Your task to perform on an android device: change the upload size in google photos Image 0: 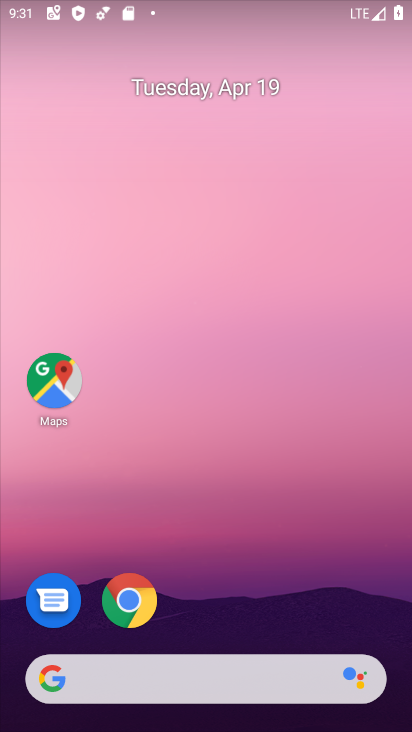
Step 0: drag from (386, 543) to (364, 172)
Your task to perform on an android device: change the upload size in google photos Image 1: 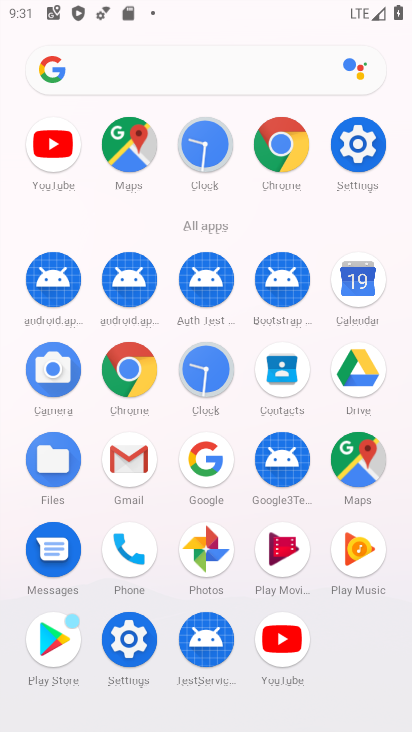
Step 1: click (207, 550)
Your task to perform on an android device: change the upload size in google photos Image 2: 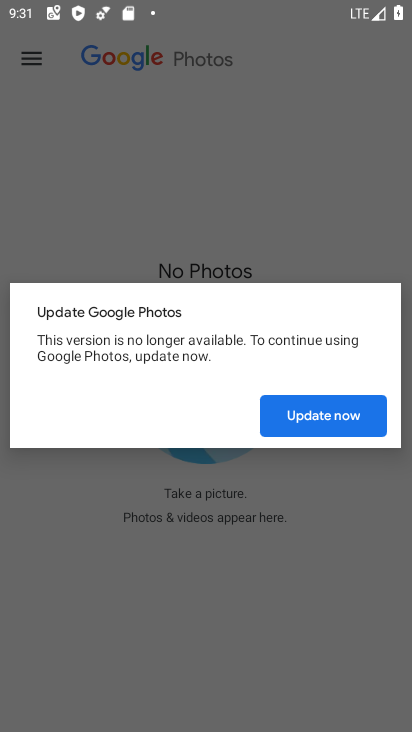
Step 2: click (343, 413)
Your task to perform on an android device: change the upload size in google photos Image 3: 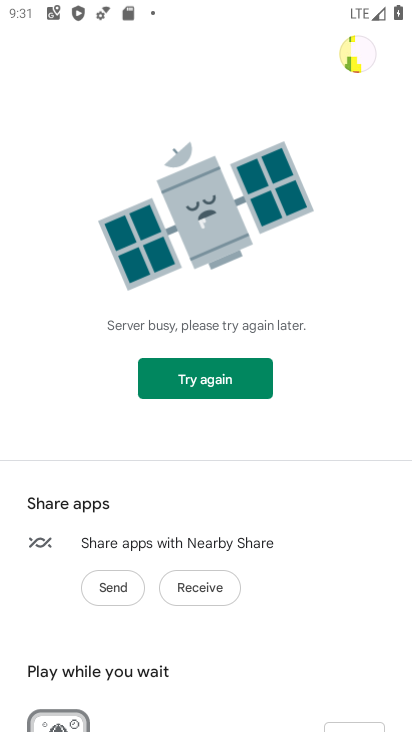
Step 3: task complete